Your task to perform on an android device: find snoozed emails in the gmail app Image 0: 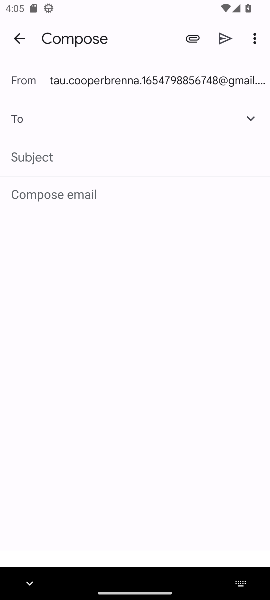
Step 0: drag from (117, 549) to (83, 315)
Your task to perform on an android device: find snoozed emails in the gmail app Image 1: 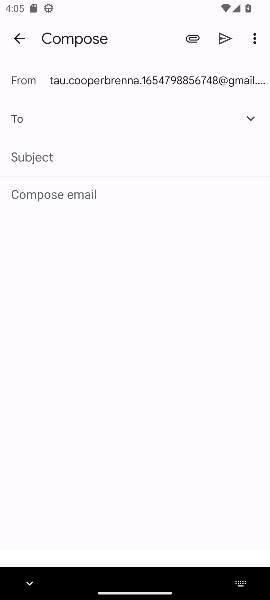
Step 1: click (22, 31)
Your task to perform on an android device: find snoozed emails in the gmail app Image 2: 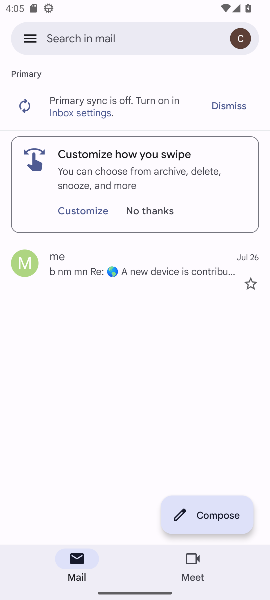
Step 2: click (82, 263)
Your task to perform on an android device: find snoozed emails in the gmail app Image 3: 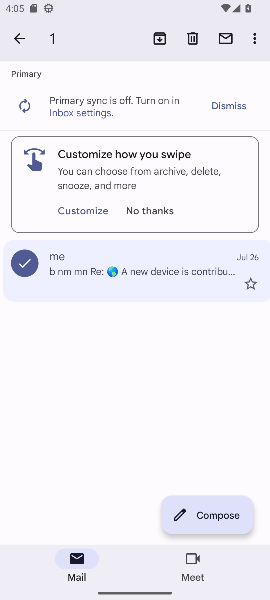
Step 3: click (245, 38)
Your task to perform on an android device: find snoozed emails in the gmail app Image 4: 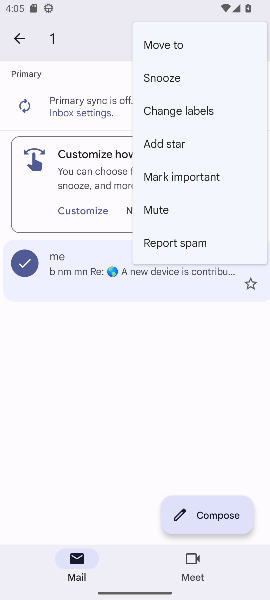
Step 4: click (158, 72)
Your task to perform on an android device: find snoozed emails in the gmail app Image 5: 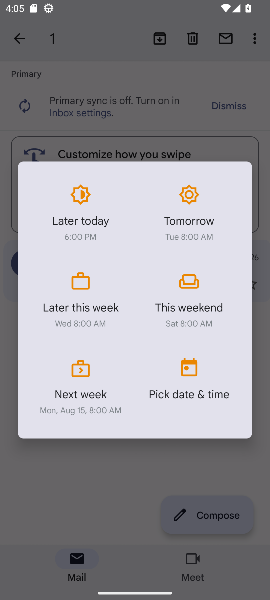
Step 5: click (74, 215)
Your task to perform on an android device: find snoozed emails in the gmail app Image 6: 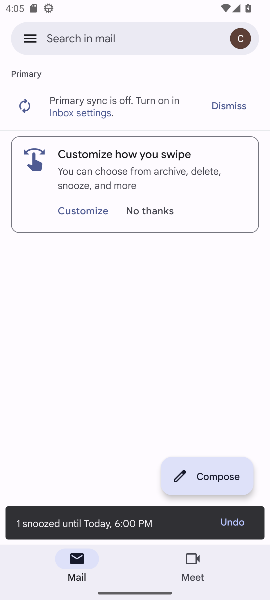
Step 6: task complete